Your task to perform on an android device: delete browsing data in the chrome app Image 0: 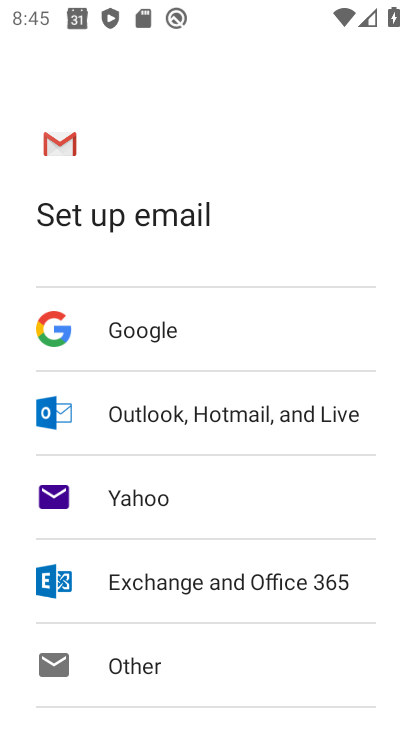
Step 0: press back button
Your task to perform on an android device: delete browsing data in the chrome app Image 1: 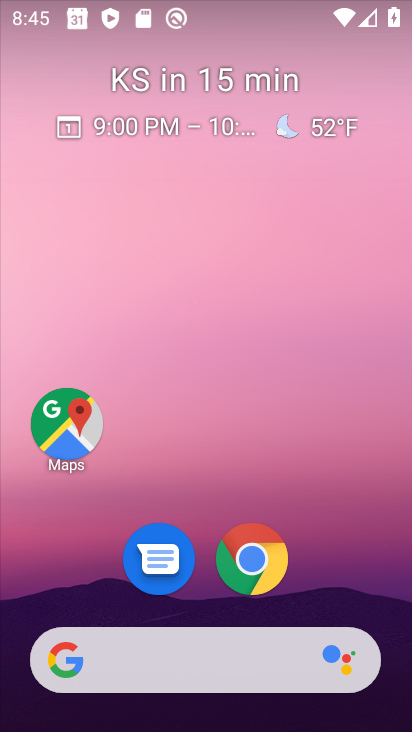
Step 1: click (255, 547)
Your task to perform on an android device: delete browsing data in the chrome app Image 2: 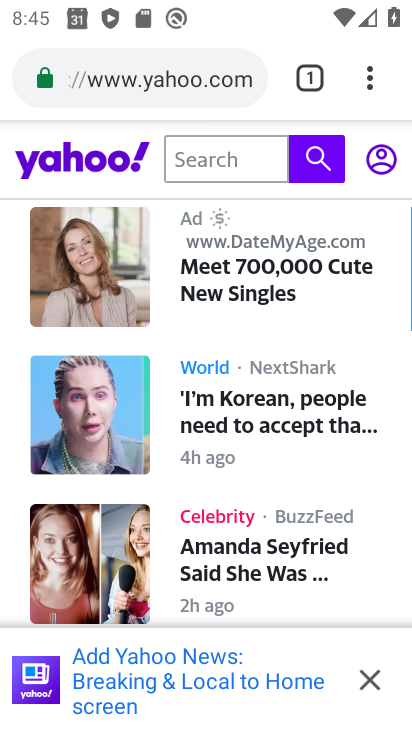
Step 2: drag from (368, 79) to (168, 429)
Your task to perform on an android device: delete browsing data in the chrome app Image 3: 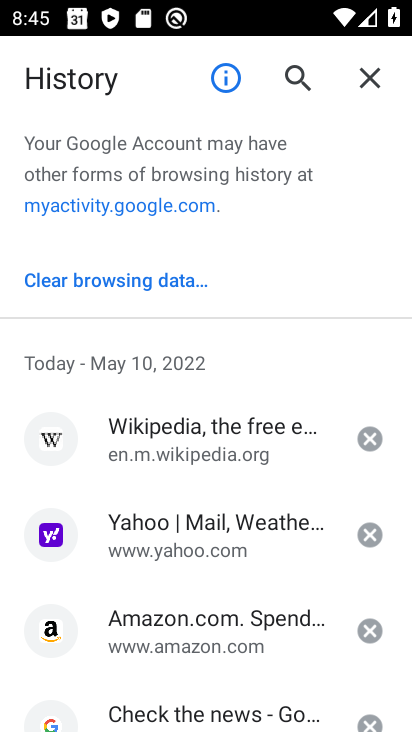
Step 3: click (124, 275)
Your task to perform on an android device: delete browsing data in the chrome app Image 4: 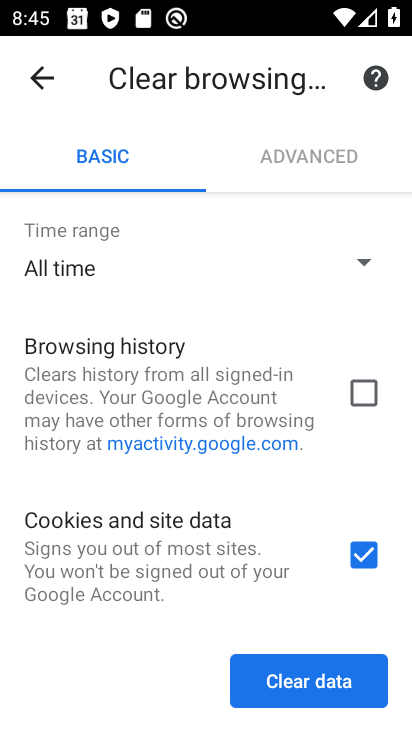
Step 4: click (352, 379)
Your task to perform on an android device: delete browsing data in the chrome app Image 5: 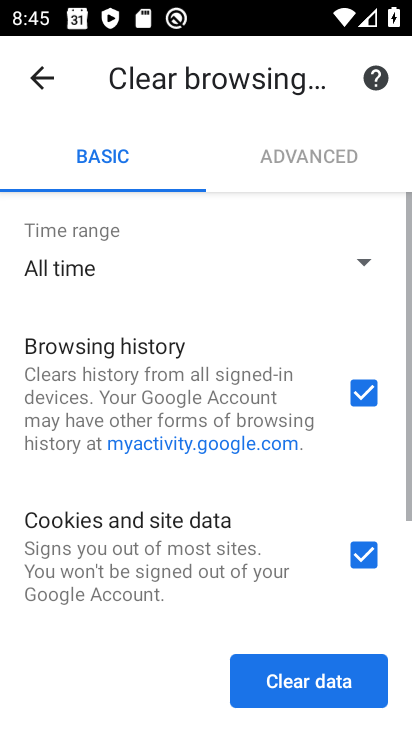
Step 5: click (316, 697)
Your task to perform on an android device: delete browsing data in the chrome app Image 6: 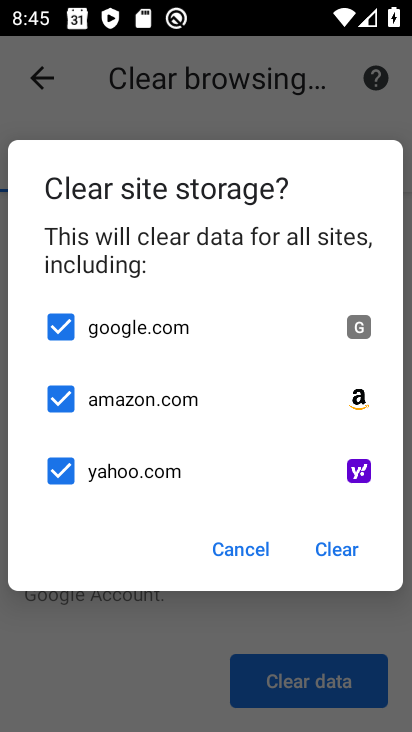
Step 6: click (346, 544)
Your task to perform on an android device: delete browsing data in the chrome app Image 7: 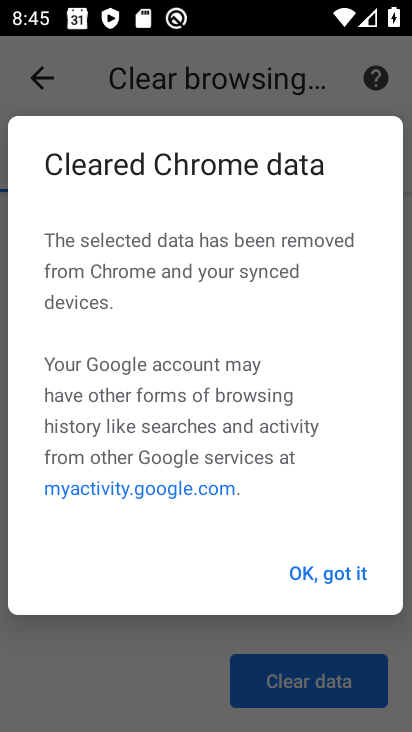
Step 7: click (345, 579)
Your task to perform on an android device: delete browsing data in the chrome app Image 8: 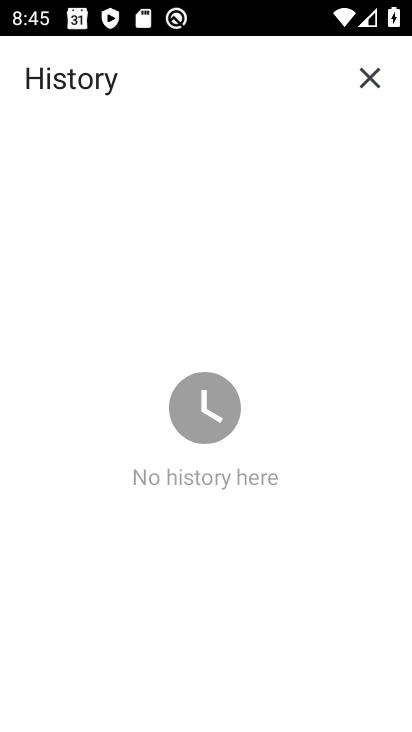
Step 8: task complete